Your task to perform on an android device: open app "Grab" Image 0: 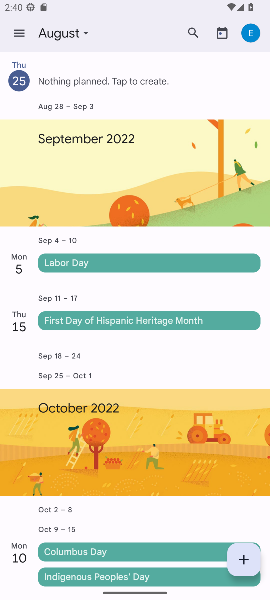
Step 0: press home button
Your task to perform on an android device: open app "Grab" Image 1: 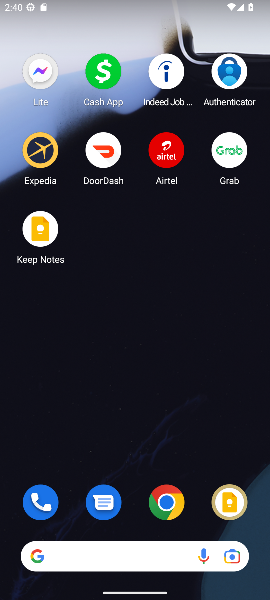
Step 1: drag from (127, 525) to (157, 131)
Your task to perform on an android device: open app "Grab" Image 2: 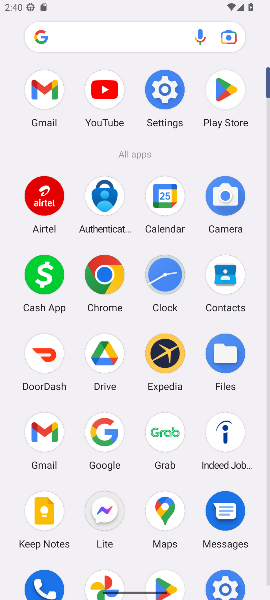
Step 2: click (227, 81)
Your task to perform on an android device: open app "Grab" Image 3: 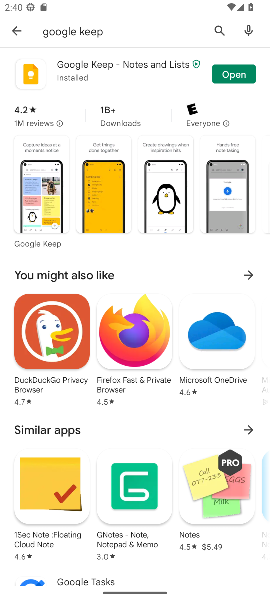
Step 3: click (216, 33)
Your task to perform on an android device: open app "Grab" Image 4: 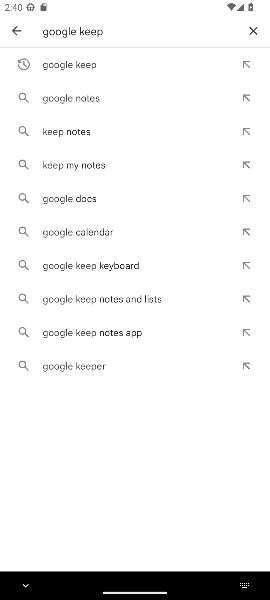
Step 4: click (241, 32)
Your task to perform on an android device: open app "Grab" Image 5: 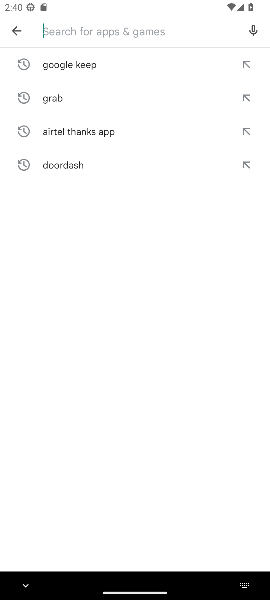
Step 5: type "grab"
Your task to perform on an android device: open app "Grab" Image 6: 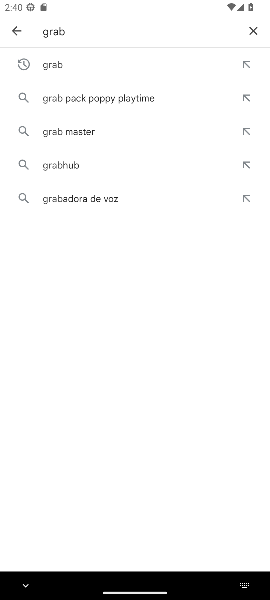
Step 6: click (155, 61)
Your task to perform on an android device: open app "Grab" Image 7: 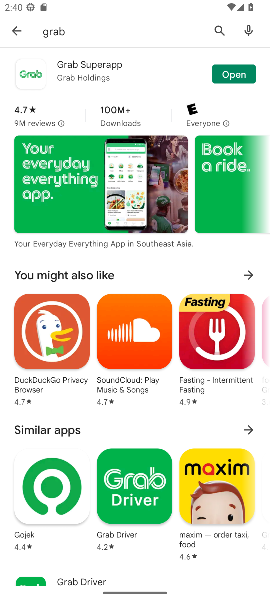
Step 7: click (225, 79)
Your task to perform on an android device: open app "Grab" Image 8: 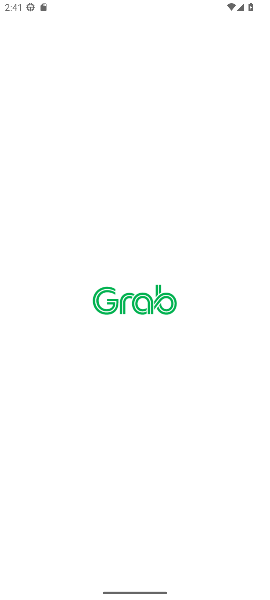
Step 8: task complete